Your task to perform on an android device: move a message to another label in the gmail app Image 0: 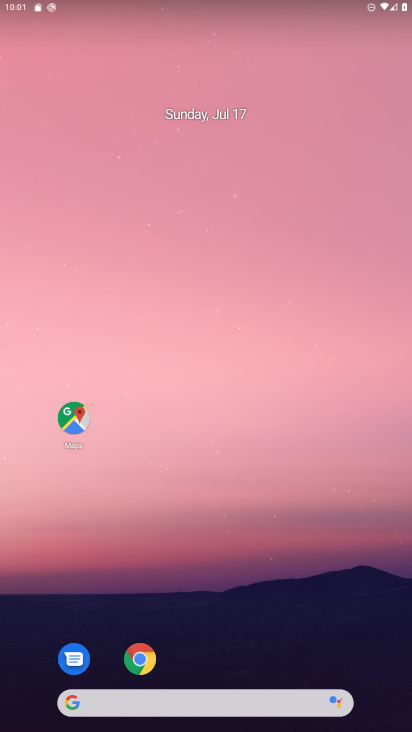
Step 0: drag from (288, 637) to (334, 136)
Your task to perform on an android device: move a message to another label in the gmail app Image 1: 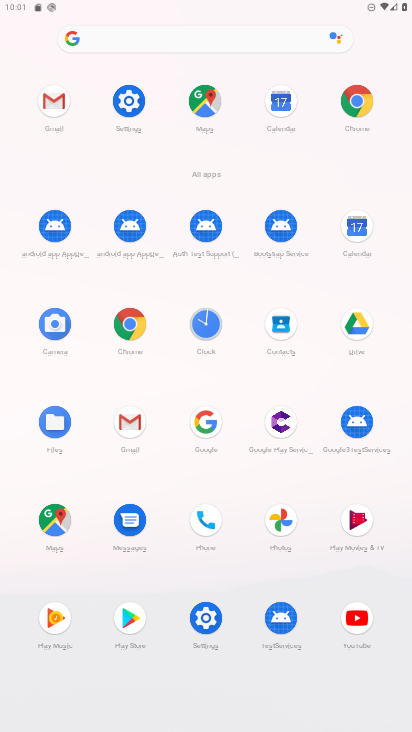
Step 1: click (122, 423)
Your task to perform on an android device: move a message to another label in the gmail app Image 2: 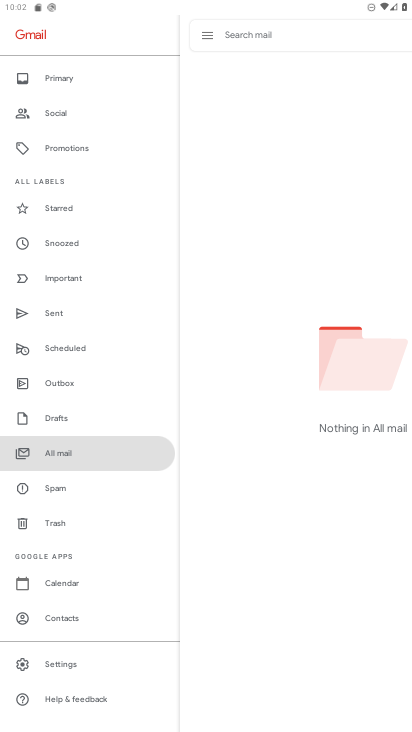
Step 2: click (105, 453)
Your task to perform on an android device: move a message to another label in the gmail app Image 3: 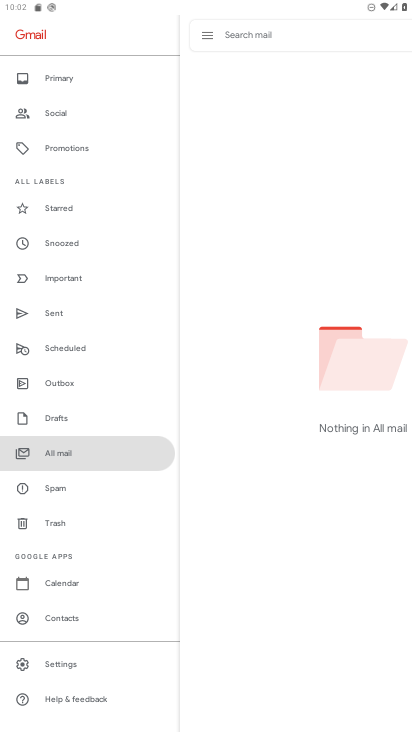
Step 3: task complete